Your task to perform on an android device: uninstall "Pandora - Music & Podcasts" Image 0: 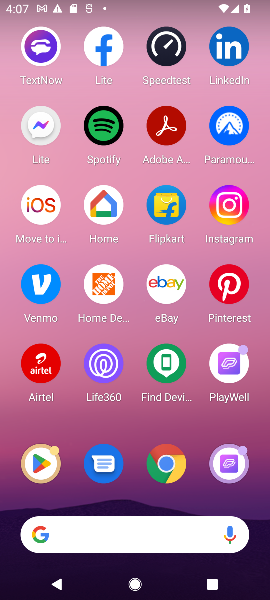
Step 0: press home button
Your task to perform on an android device: uninstall "Pandora - Music & Podcasts" Image 1: 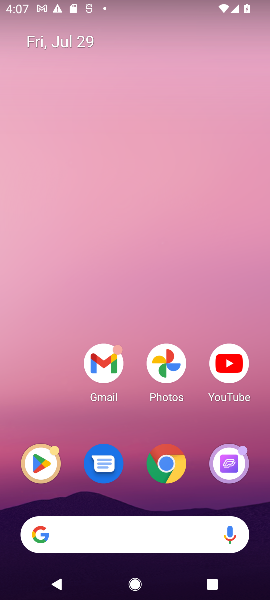
Step 1: drag from (99, 544) to (122, 40)
Your task to perform on an android device: uninstall "Pandora - Music & Podcasts" Image 2: 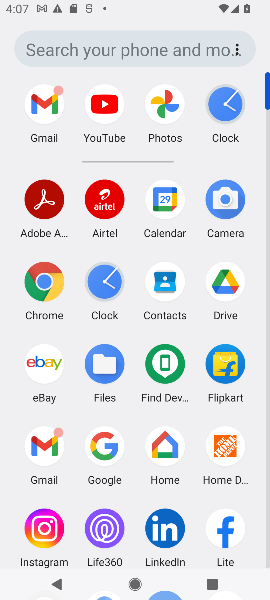
Step 2: drag from (123, 509) to (99, 233)
Your task to perform on an android device: uninstall "Pandora - Music & Podcasts" Image 3: 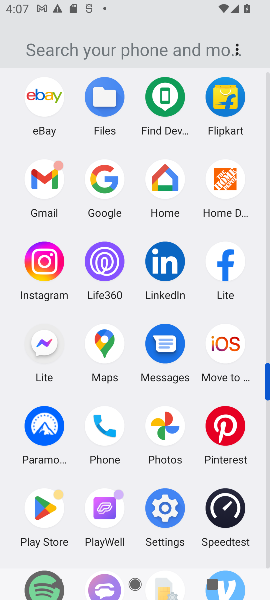
Step 3: drag from (124, 487) to (128, 302)
Your task to perform on an android device: uninstall "Pandora - Music & Podcasts" Image 4: 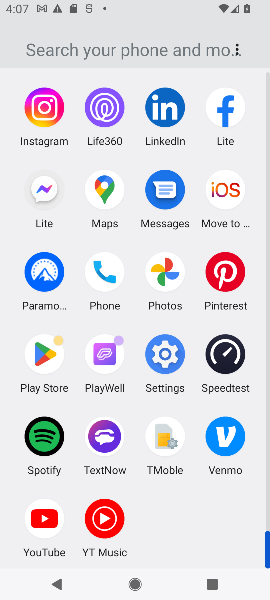
Step 4: click (44, 356)
Your task to perform on an android device: uninstall "Pandora - Music & Podcasts" Image 5: 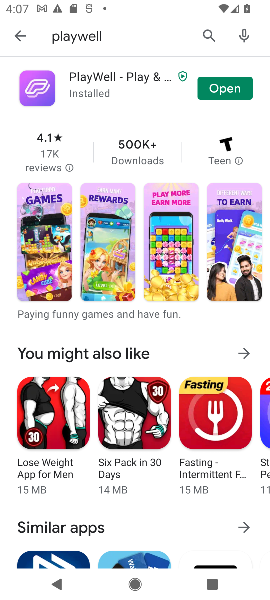
Step 5: click (209, 40)
Your task to perform on an android device: uninstall "Pandora - Music & Podcasts" Image 6: 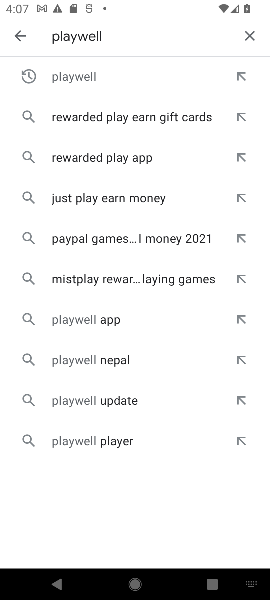
Step 6: click (248, 29)
Your task to perform on an android device: uninstall "Pandora - Music & Podcasts" Image 7: 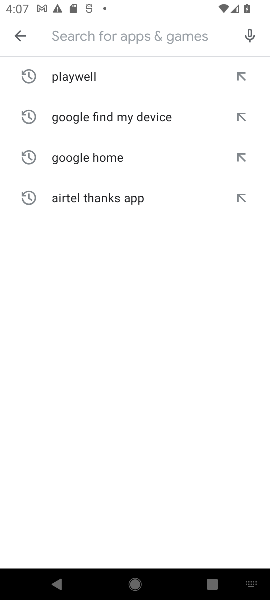
Step 7: type "Pandora - Music & Podcasts"
Your task to perform on an android device: uninstall "Pandora - Music & Podcasts" Image 8: 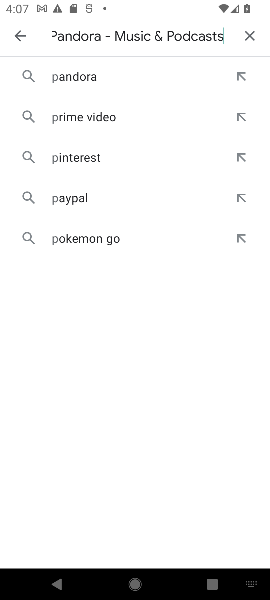
Step 8: type ""
Your task to perform on an android device: uninstall "Pandora - Music & Podcasts" Image 9: 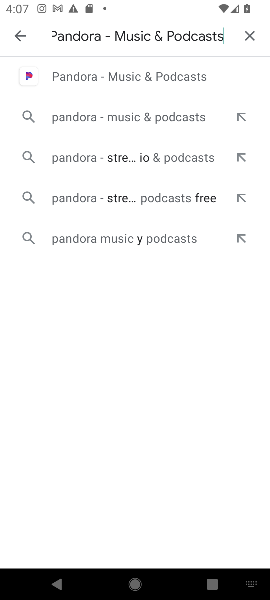
Step 9: click (158, 75)
Your task to perform on an android device: uninstall "Pandora - Music & Podcasts" Image 10: 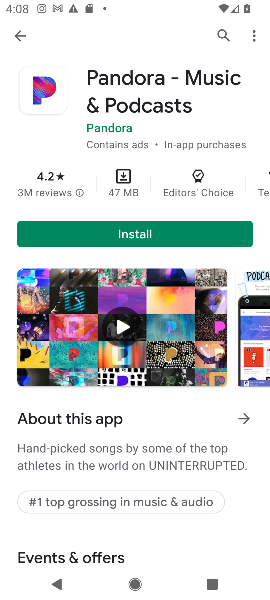
Step 10: task complete